Your task to perform on an android device: Go to Google maps Image 0: 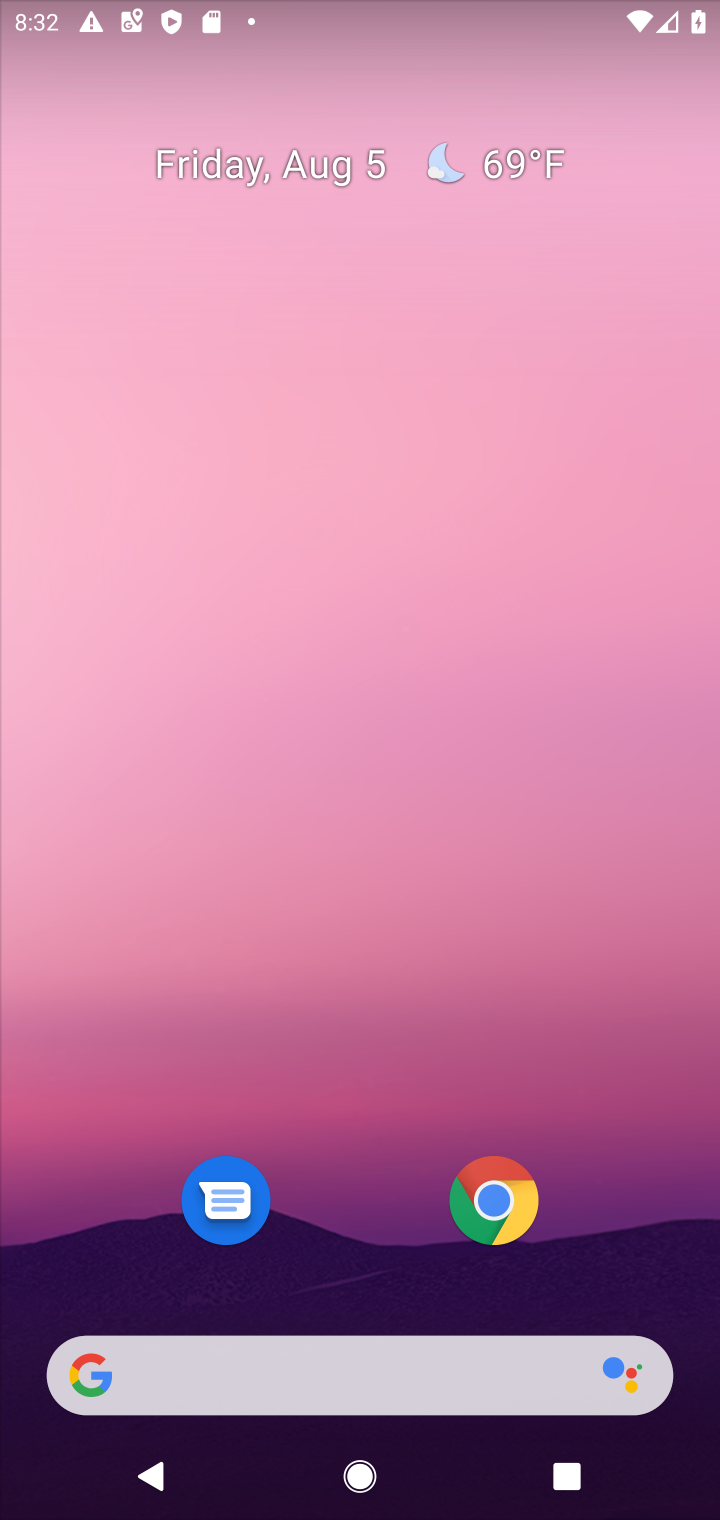
Step 0: drag from (316, 567) to (316, 345)
Your task to perform on an android device: Go to Google maps Image 1: 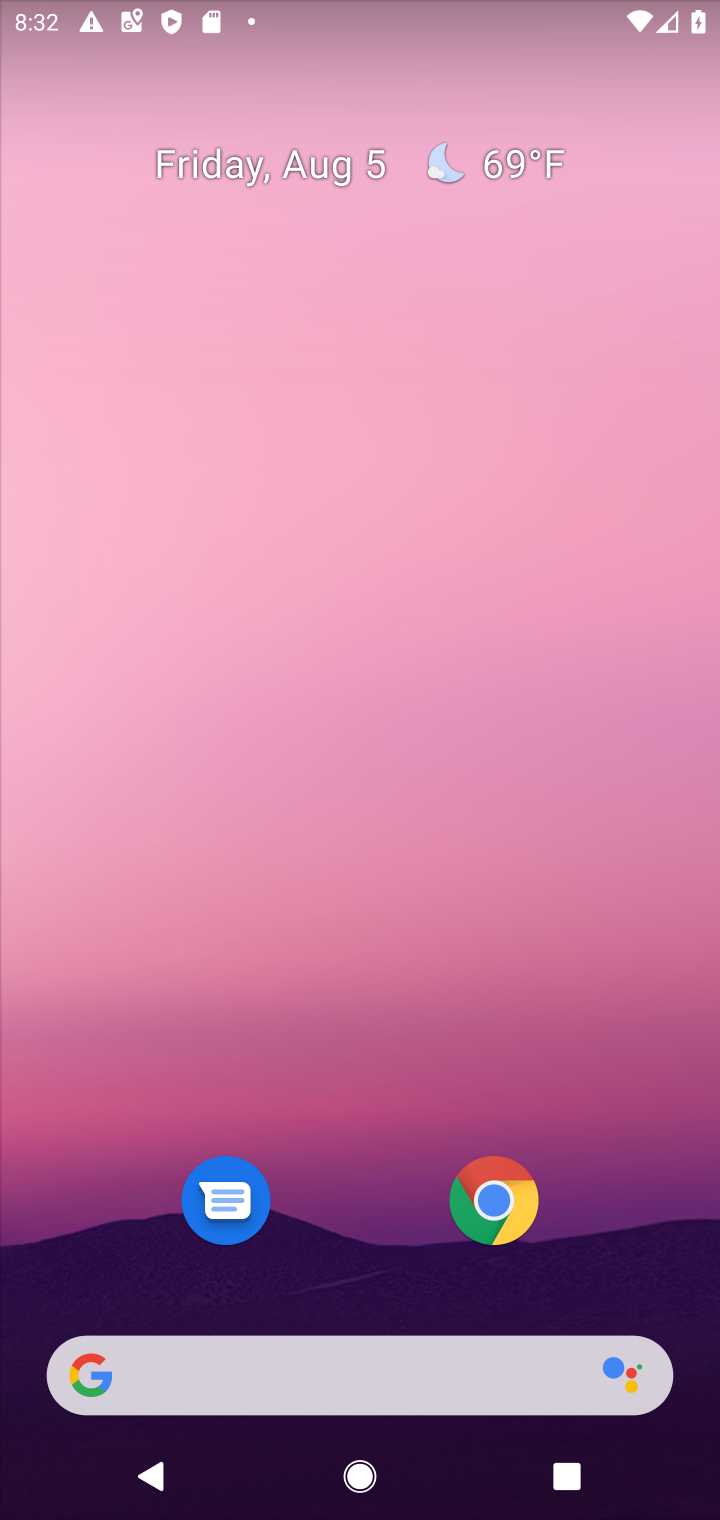
Step 1: drag from (299, 1080) to (322, 398)
Your task to perform on an android device: Go to Google maps Image 2: 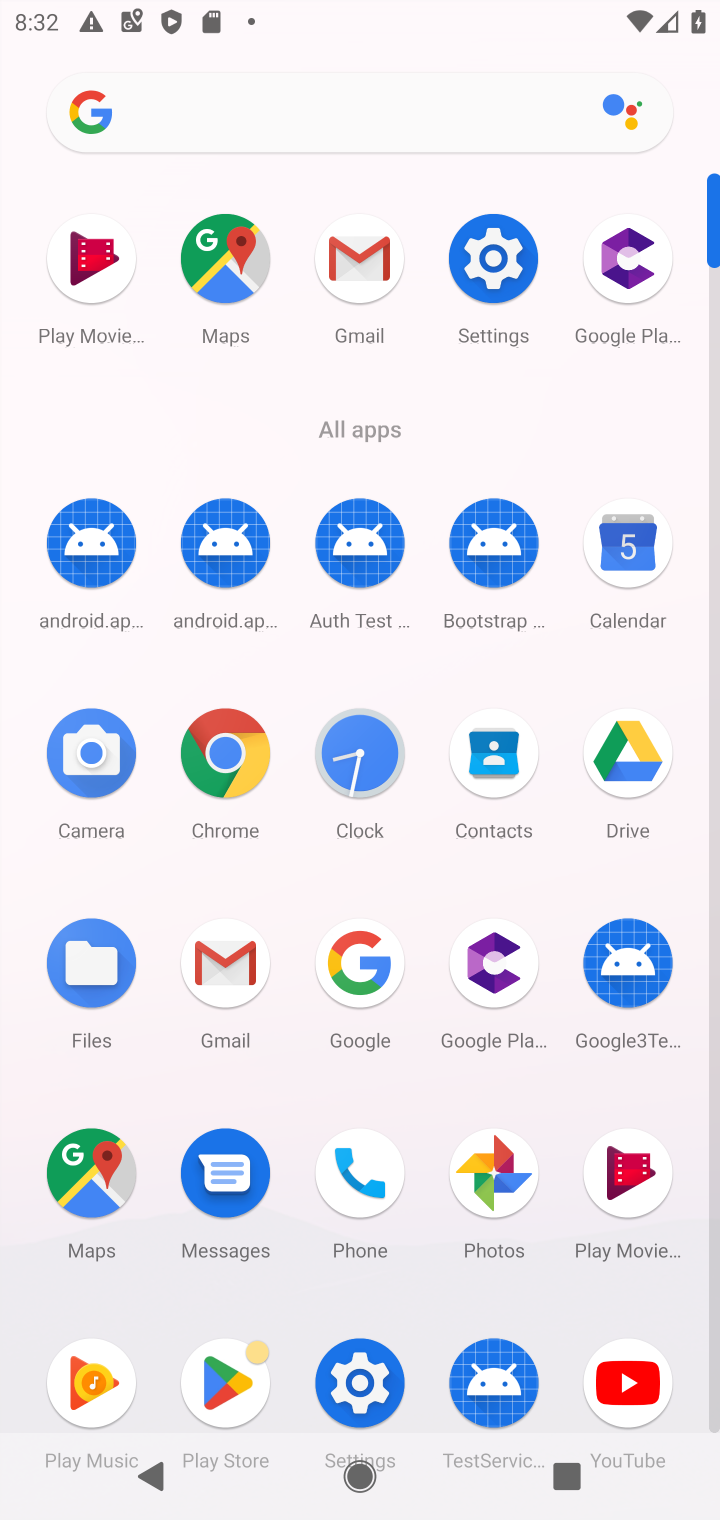
Step 2: click (229, 287)
Your task to perform on an android device: Go to Google maps Image 3: 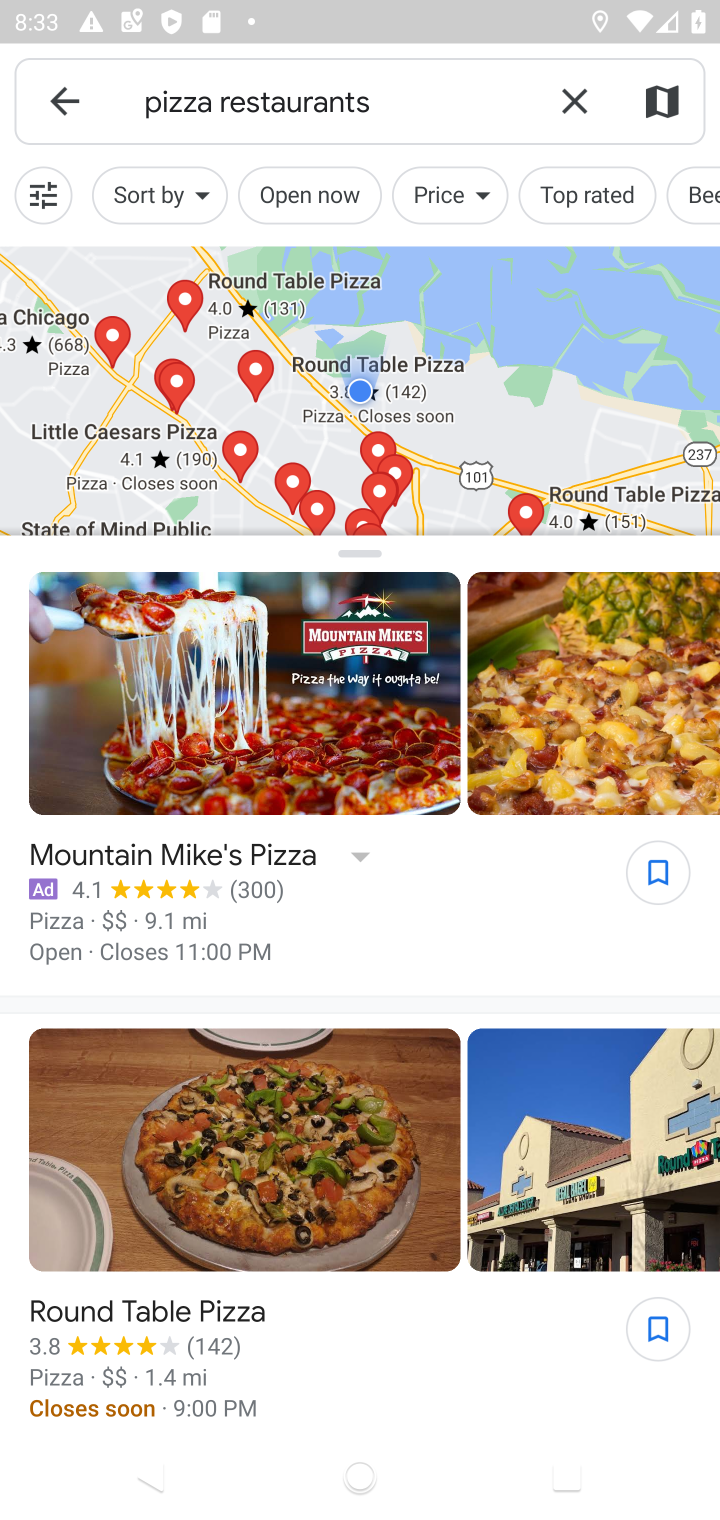
Step 3: click (555, 83)
Your task to perform on an android device: Go to Google maps Image 4: 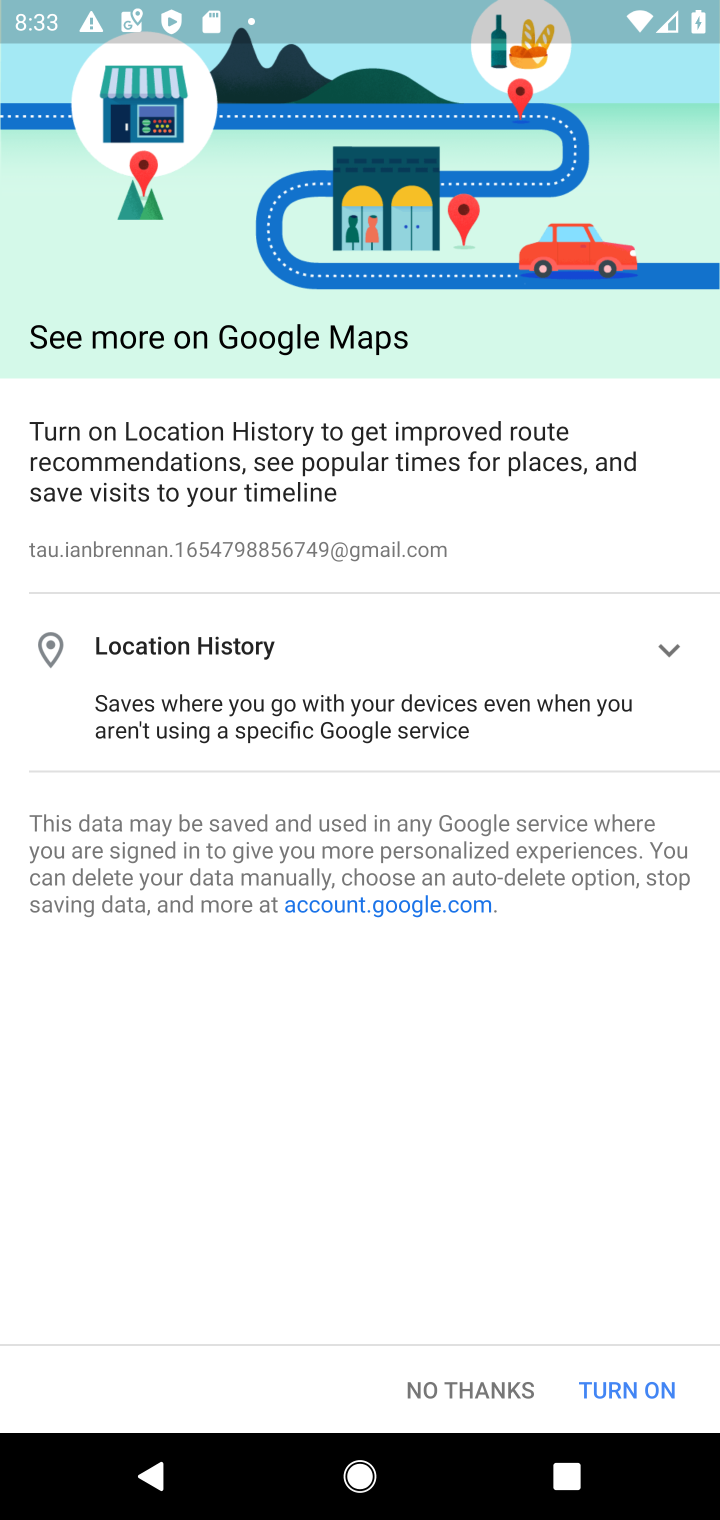
Step 4: click (595, 1386)
Your task to perform on an android device: Go to Google maps Image 5: 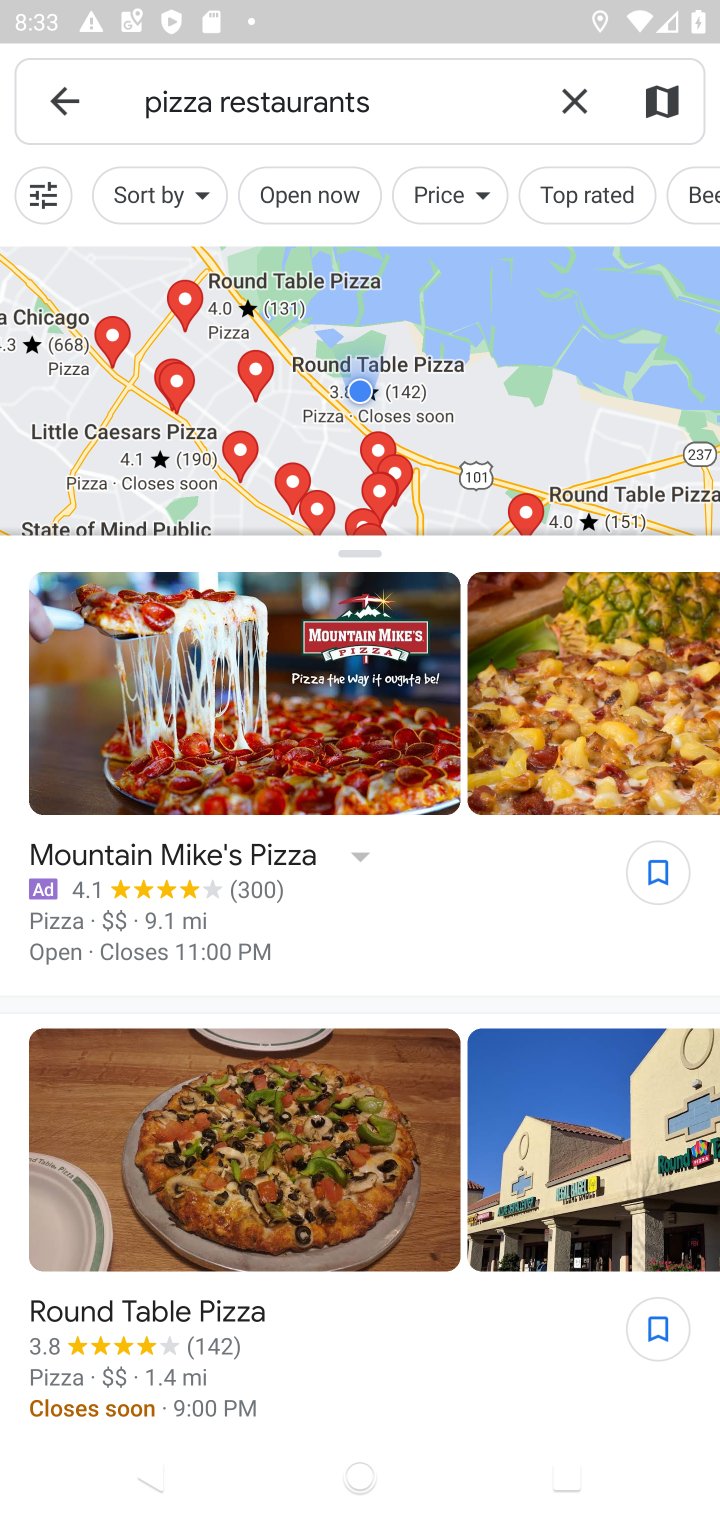
Step 5: click (573, 109)
Your task to perform on an android device: Go to Google maps Image 6: 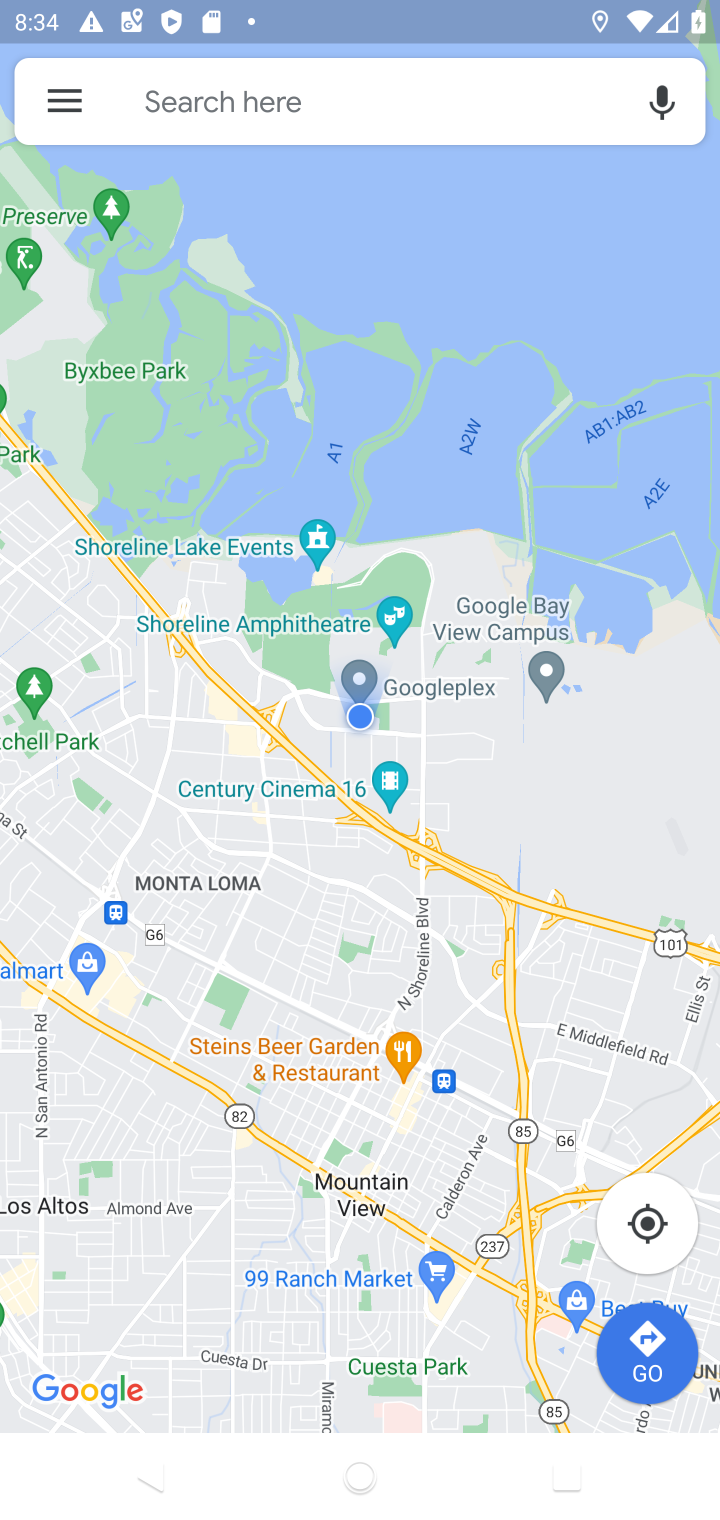
Step 6: task complete